Your task to perform on an android device: How big is a blue whale? Image 0: 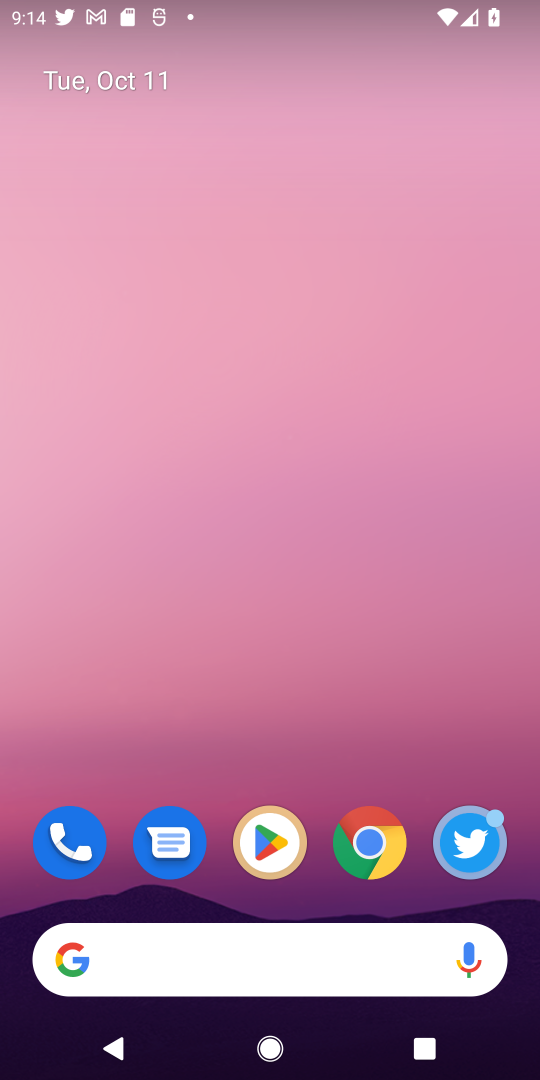
Step 0: click (352, 833)
Your task to perform on an android device: How big is a blue whale? Image 1: 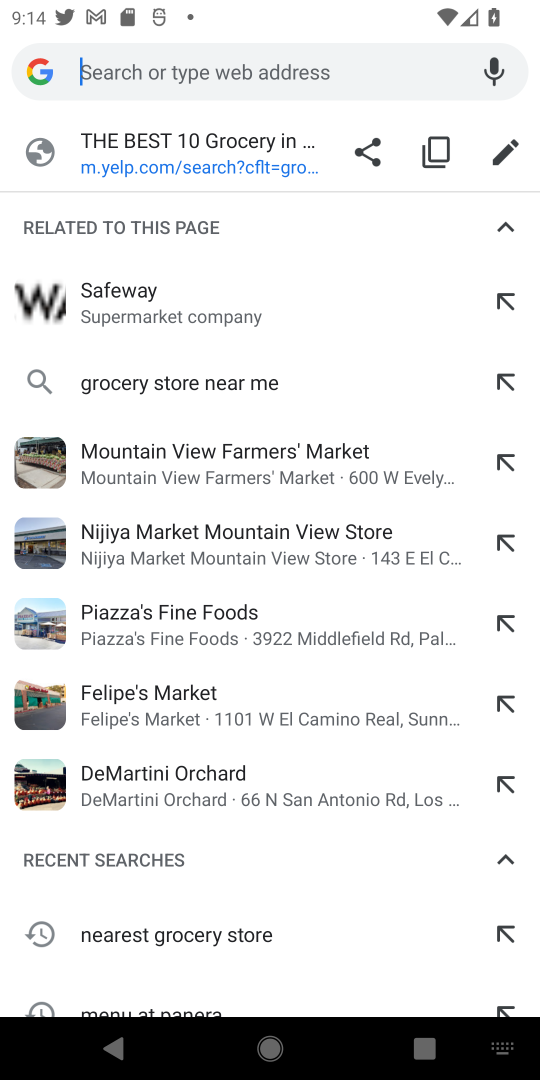
Step 1: type "how big is blue whale"
Your task to perform on an android device: How big is a blue whale? Image 2: 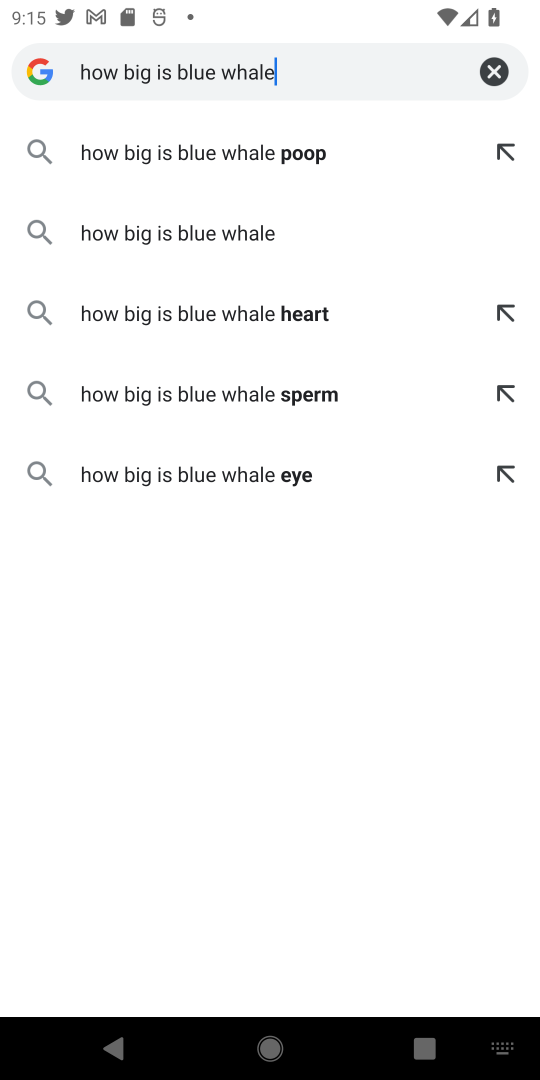
Step 2: click (195, 228)
Your task to perform on an android device: How big is a blue whale? Image 3: 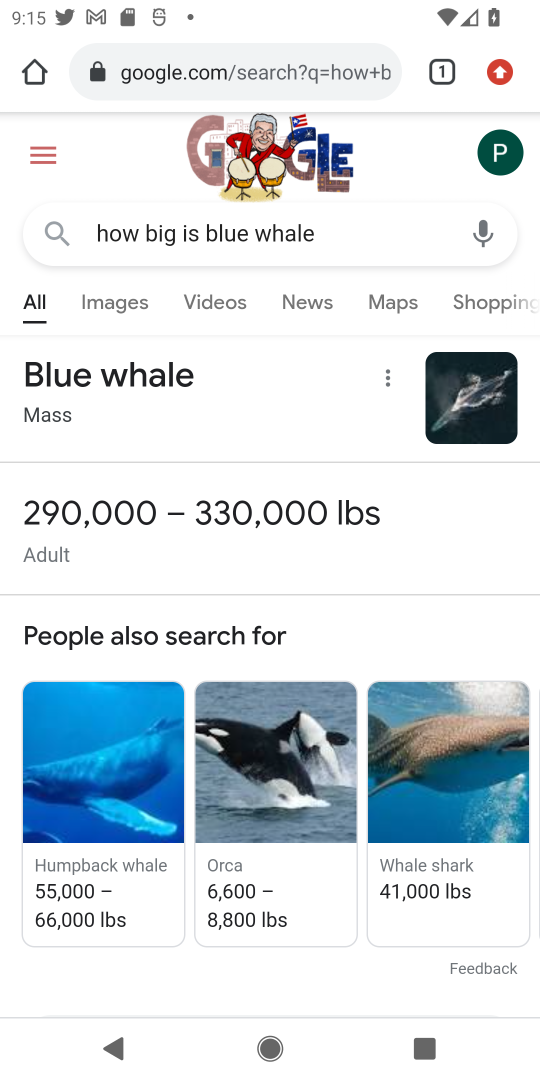
Step 3: drag from (286, 943) to (423, 206)
Your task to perform on an android device: How big is a blue whale? Image 4: 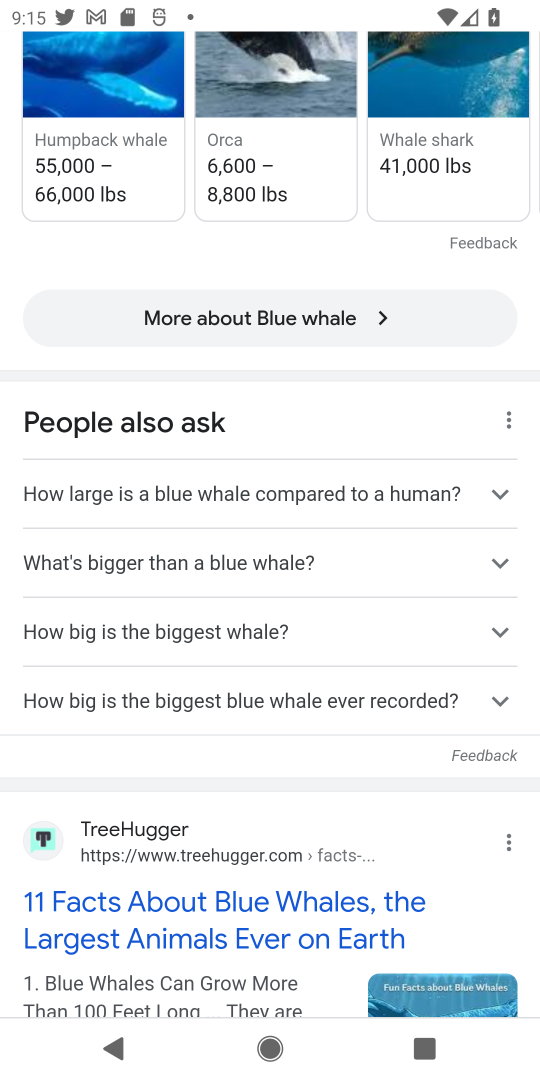
Step 4: drag from (202, 851) to (268, 236)
Your task to perform on an android device: How big is a blue whale? Image 5: 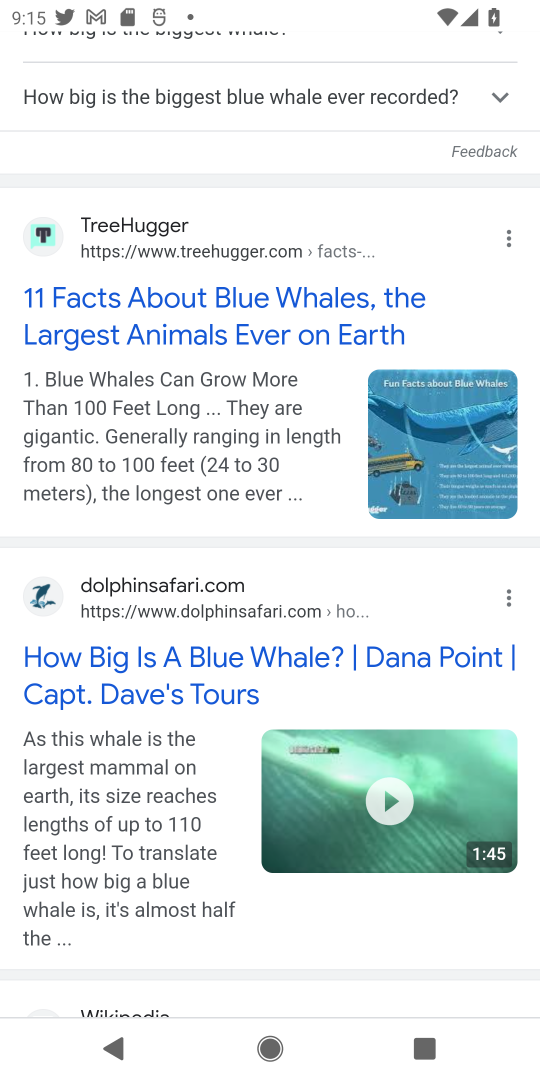
Step 5: drag from (263, 184) to (210, 789)
Your task to perform on an android device: How big is a blue whale? Image 6: 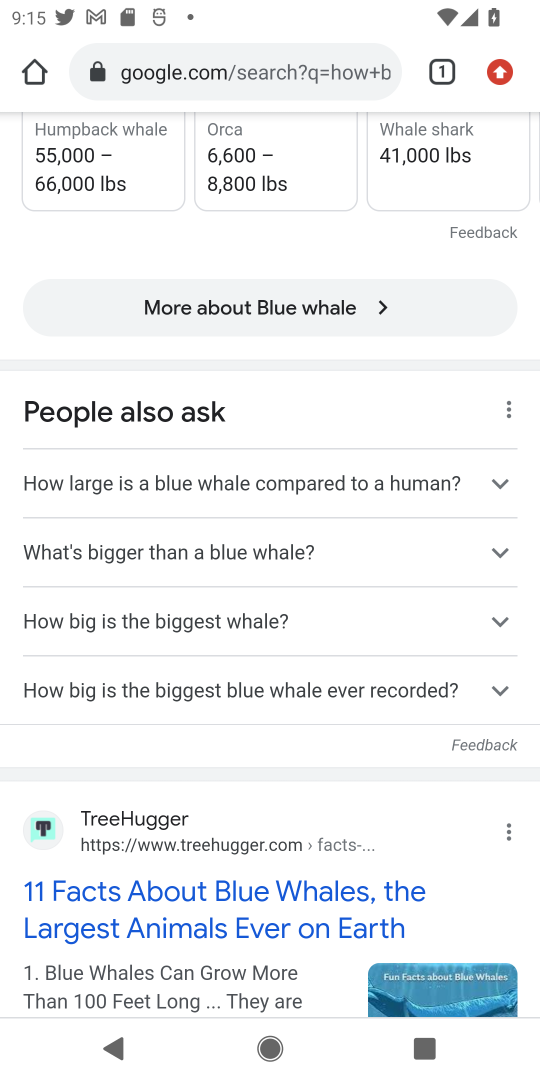
Step 6: click (141, 627)
Your task to perform on an android device: How big is a blue whale? Image 7: 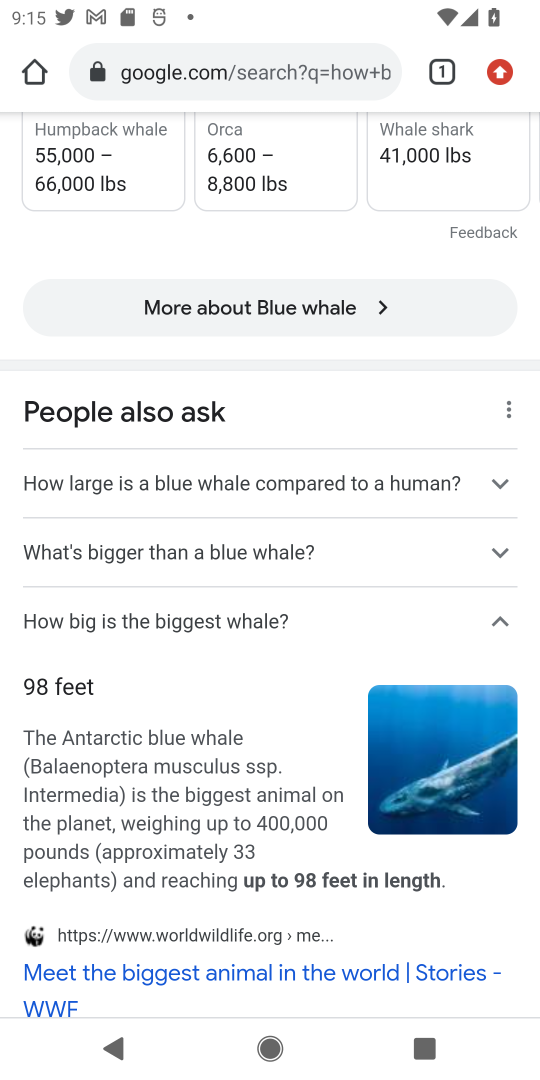
Step 7: drag from (224, 747) to (345, 320)
Your task to perform on an android device: How big is a blue whale? Image 8: 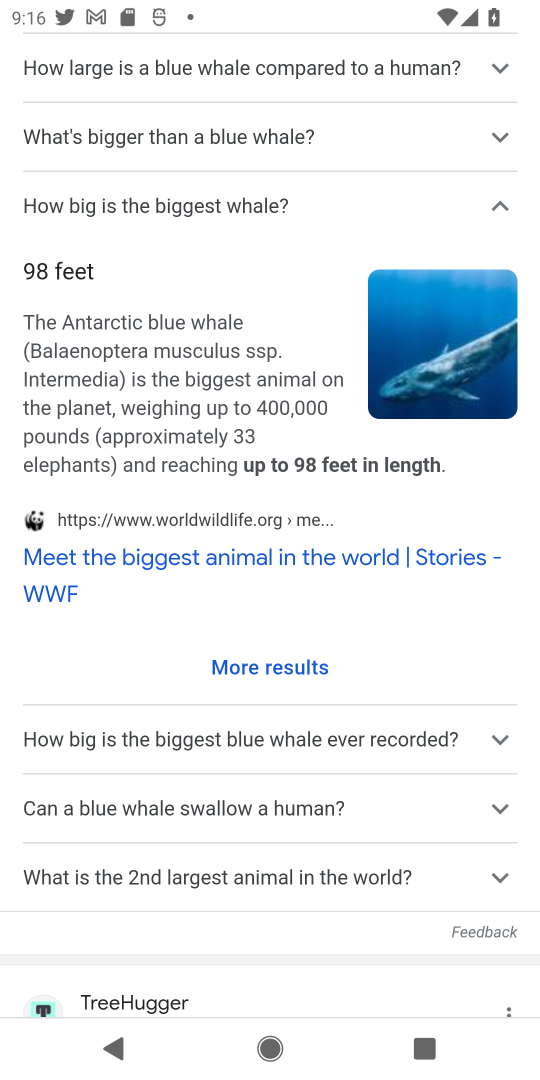
Step 8: drag from (319, 841) to (388, 161)
Your task to perform on an android device: How big is a blue whale? Image 9: 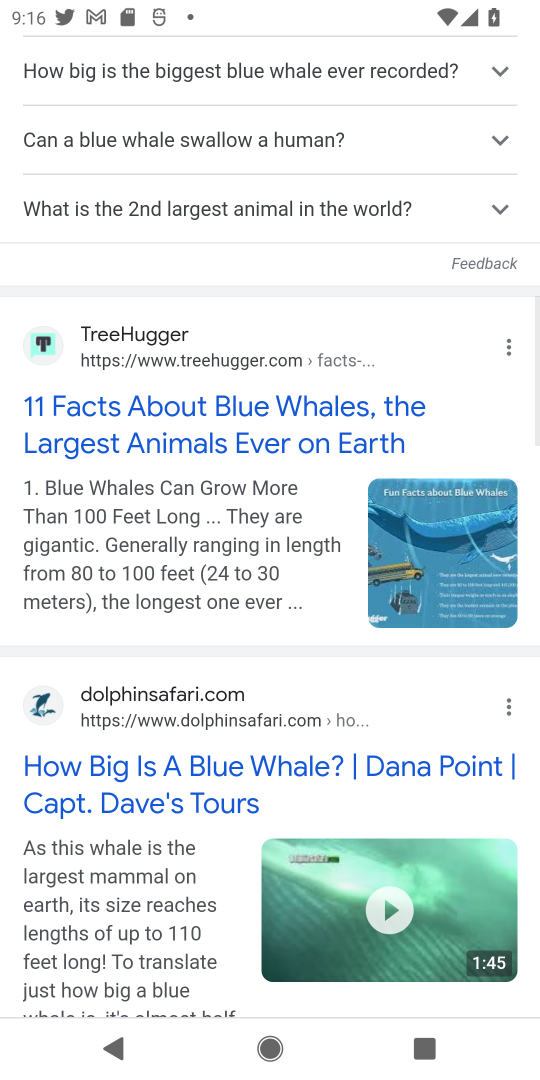
Step 9: drag from (201, 696) to (281, 286)
Your task to perform on an android device: How big is a blue whale? Image 10: 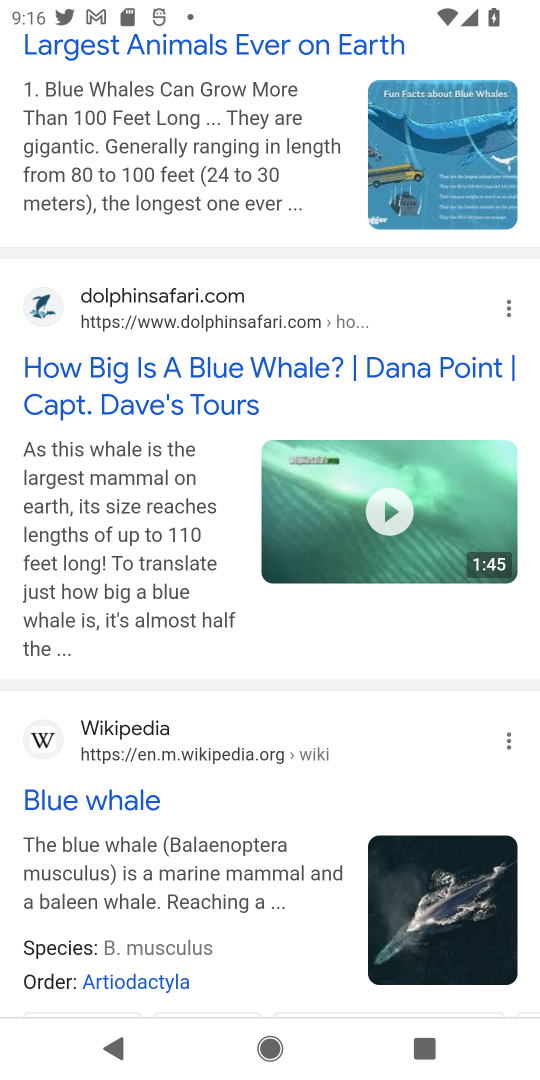
Step 10: click (212, 360)
Your task to perform on an android device: How big is a blue whale? Image 11: 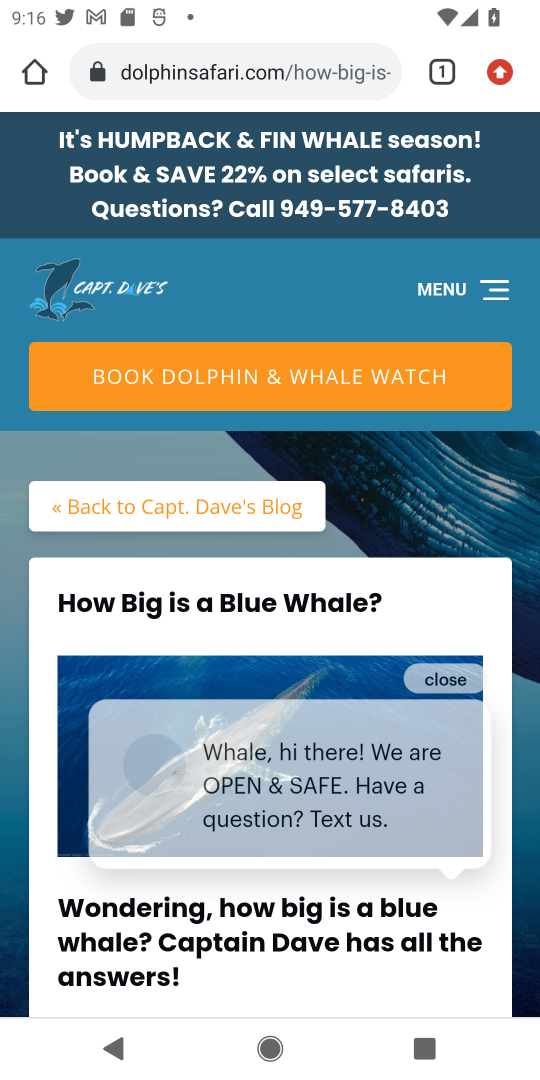
Step 11: drag from (307, 696) to (419, 108)
Your task to perform on an android device: How big is a blue whale? Image 12: 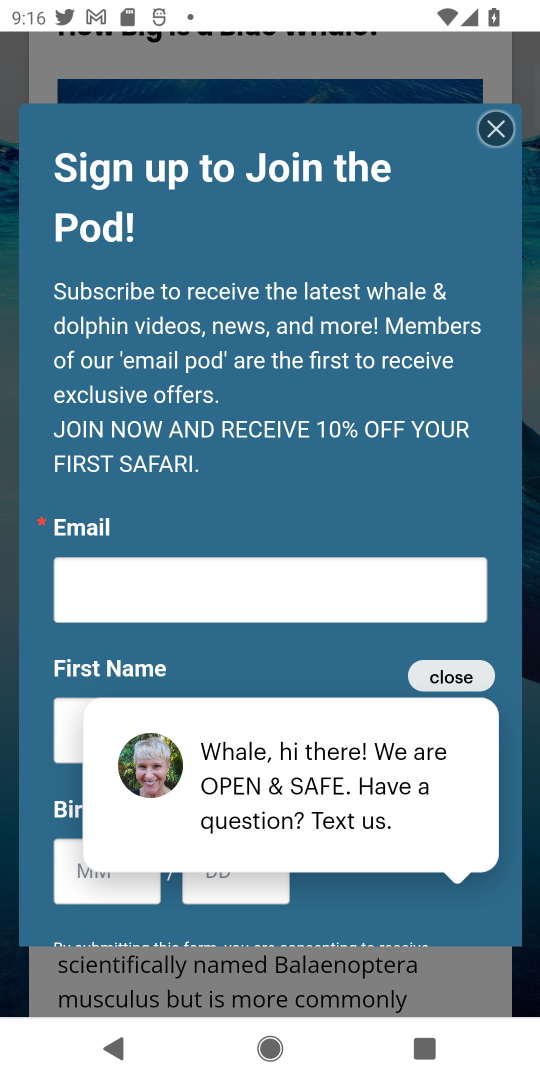
Step 12: click (431, 671)
Your task to perform on an android device: How big is a blue whale? Image 13: 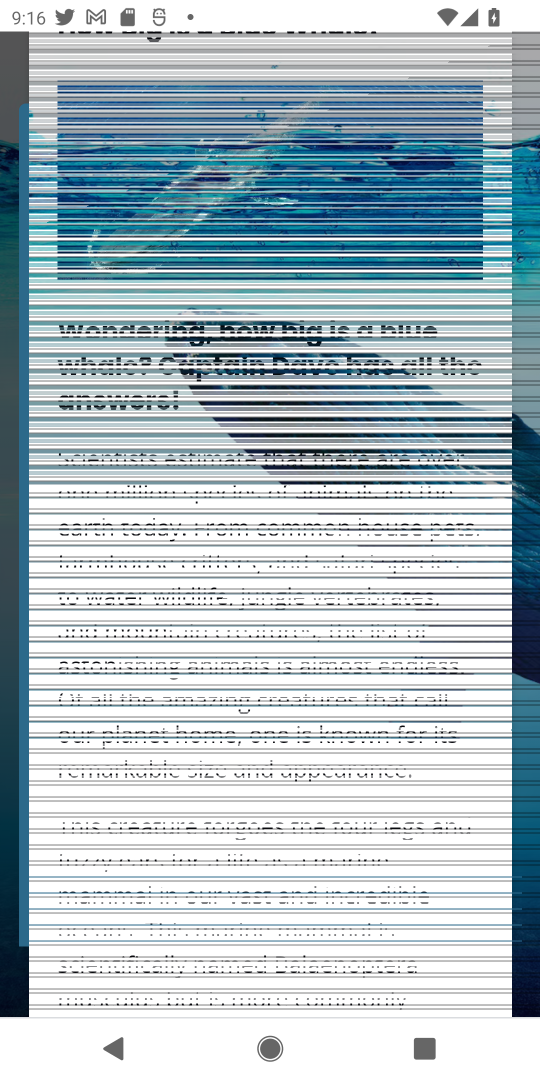
Step 13: drag from (235, 522) to (297, 316)
Your task to perform on an android device: How big is a blue whale? Image 14: 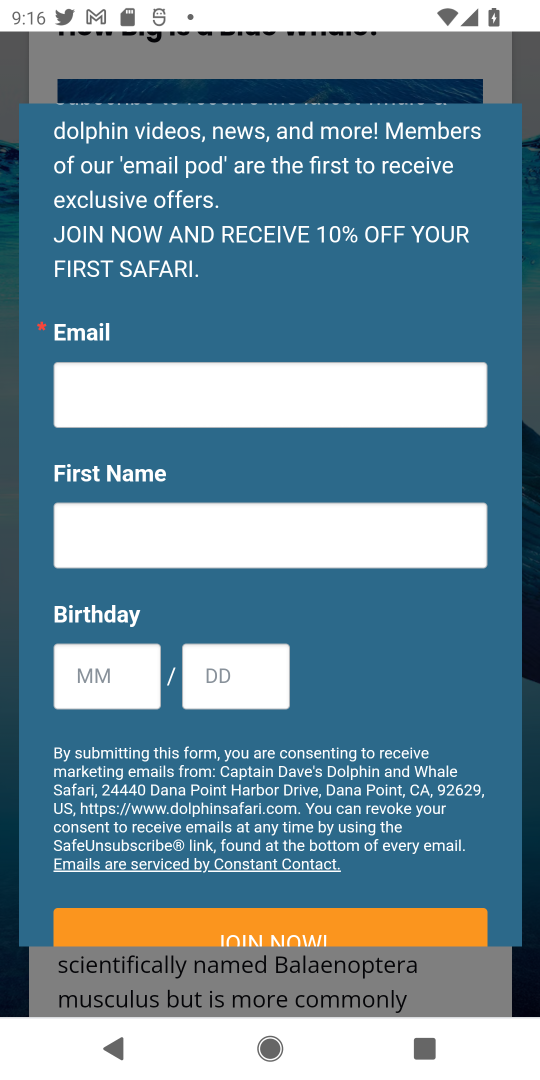
Step 14: click (539, 442)
Your task to perform on an android device: How big is a blue whale? Image 15: 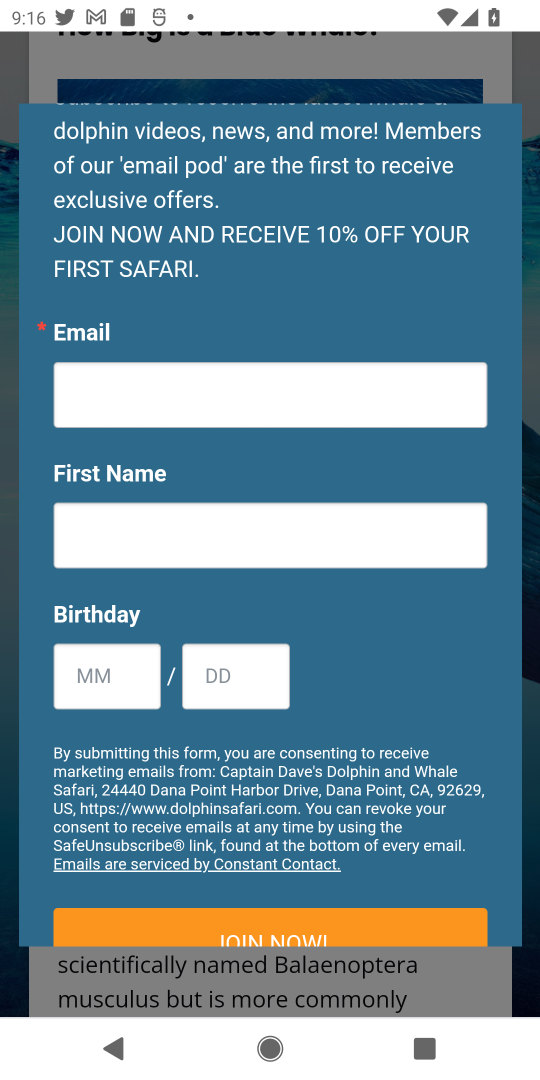
Step 15: task complete